Your task to perform on an android device: snooze an email in the gmail app Image 0: 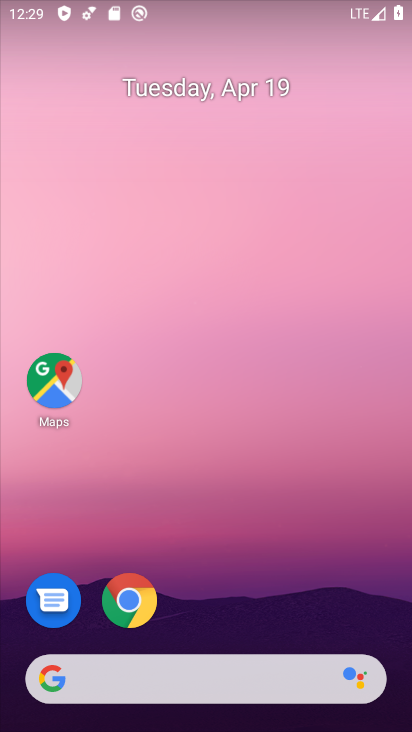
Step 0: drag from (319, 493) to (281, 143)
Your task to perform on an android device: snooze an email in the gmail app Image 1: 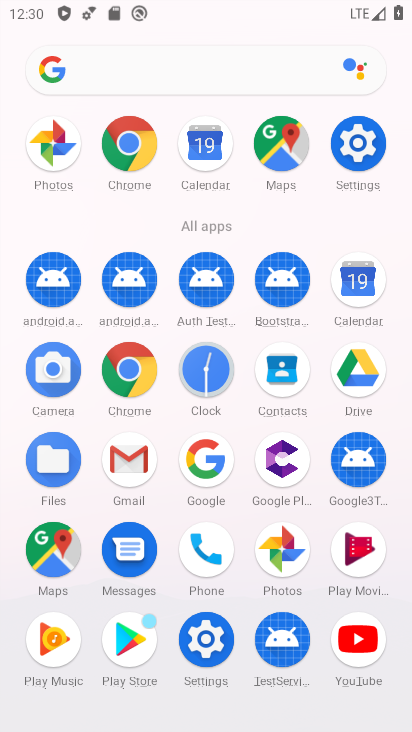
Step 1: click (126, 453)
Your task to perform on an android device: snooze an email in the gmail app Image 2: 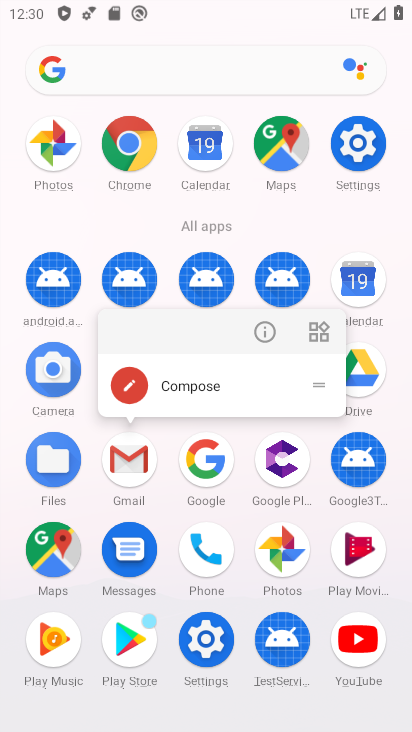
Step 2: click (127, 468)
Your task to perform on an android device: snooze an email in the gmail app Image 3: 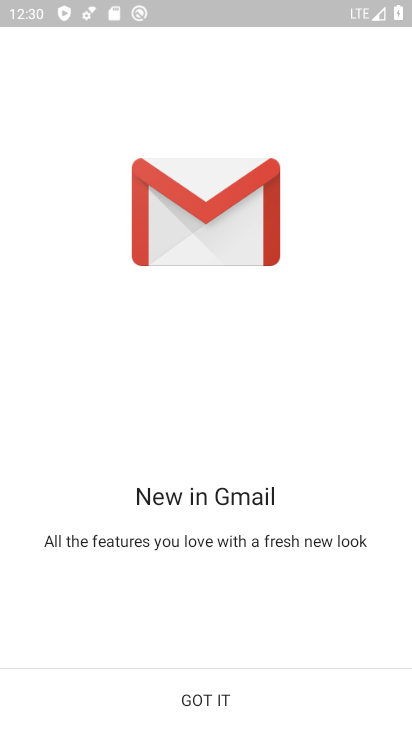
Step 3: click (236, 698)
Your task to perform on an android device: snooze an email in the gmail app Image 4: 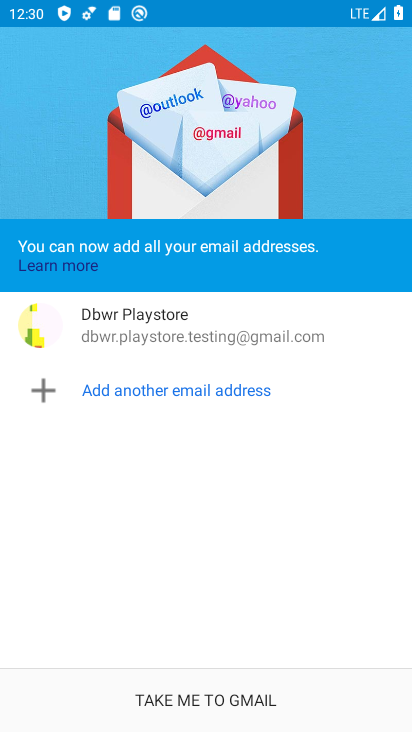
Step 4: click (226, 701)
Your task to perform on an android device: snooze an email in the gmail app Image 5: 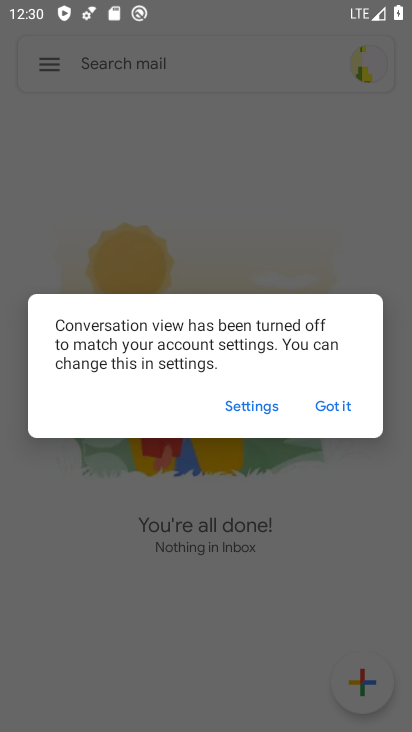
Step 5: click (345, 405)
Your task to perform on an android device: snooze an email in the gmail app Image 6: 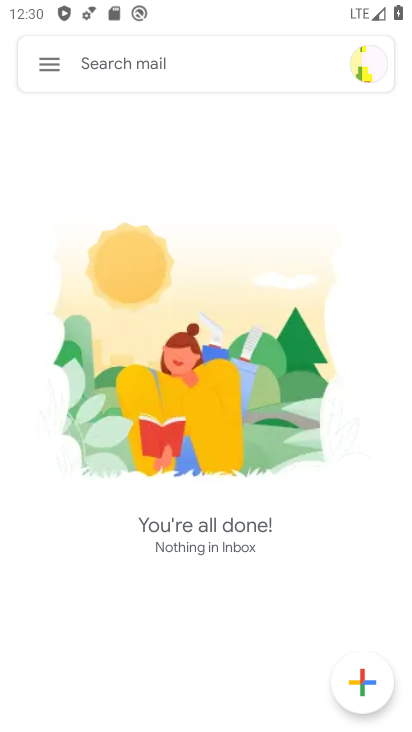
Step 6: click (46, 63)
Your task to perform on an android device: snooze an email in the gmail app Image 7: 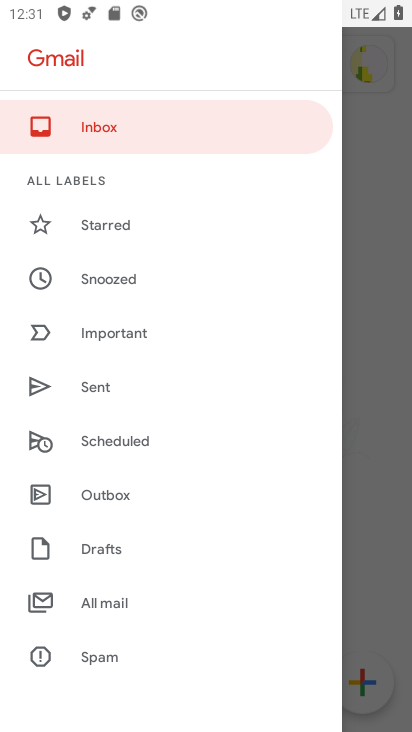
Step 7: drag from (172, 584) to (173, 180)
Your task to perform on an android device: snooze an email in the gmail app Image 8: 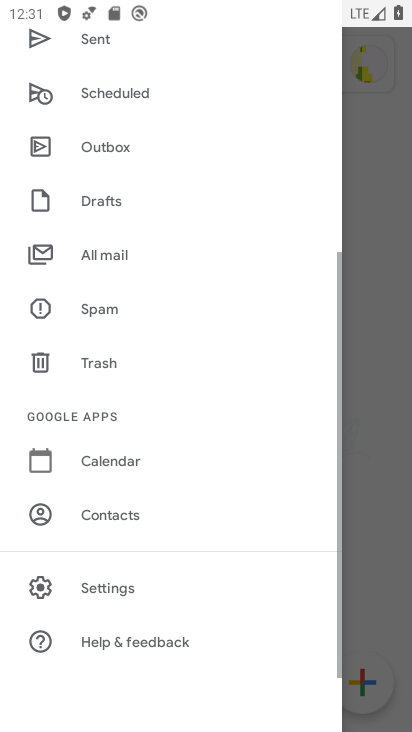
Step 8: click (96, 254)
Your task to perform on an android device: snooze an email in the gmail app Image 9: 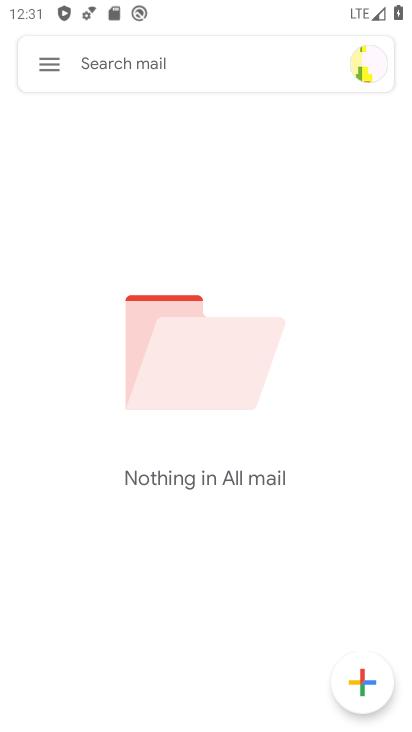
Step 9: task complete